Your task to perform on an android device: Open Google Maps Image 0: 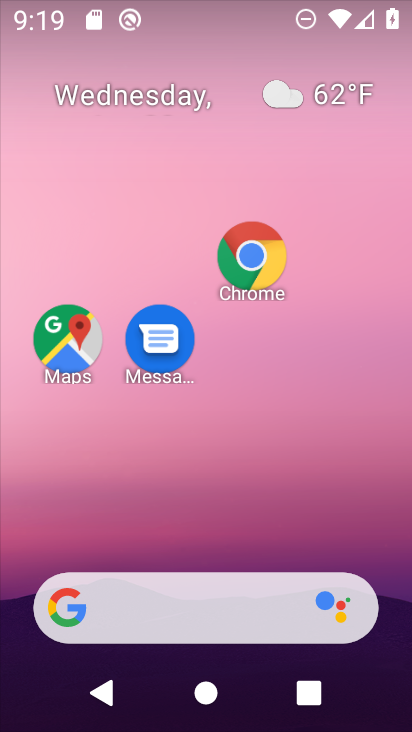
Step 0: click (66, 342)
Your task to perform on an android device: Open Google Maps Image 1: 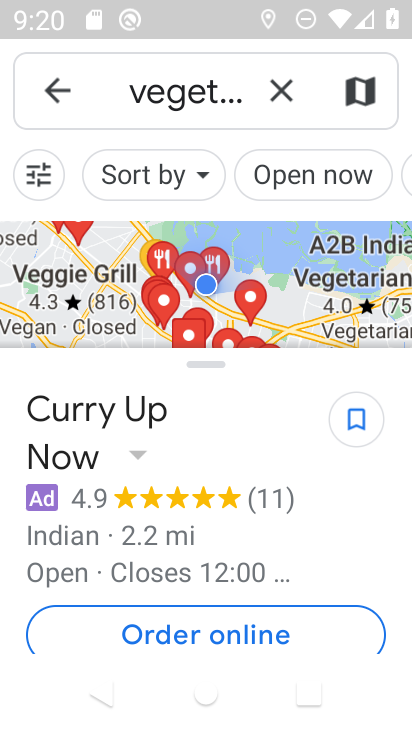
Step 1: task complete